Your task to perform on an android device: Open maps Image 0: 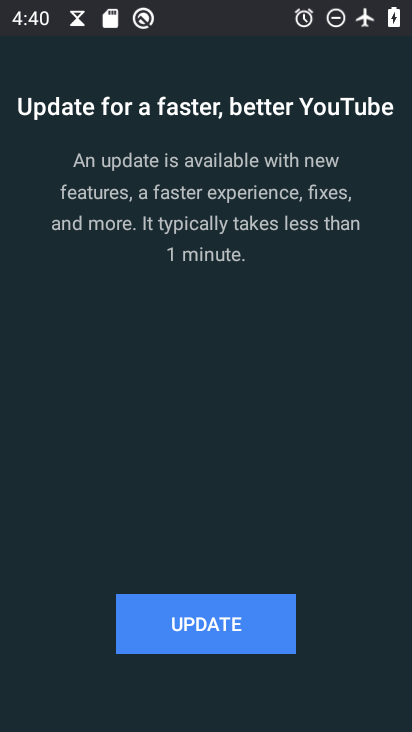
Step 0: press home button
Your task to perform on an android device: Open maps Image 1: 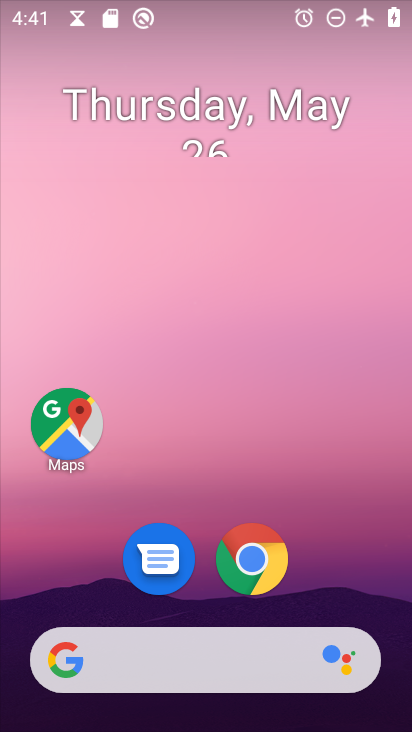
Step 1: click (46, 410)
Your task to perform on an android device: Open maps Image 2: 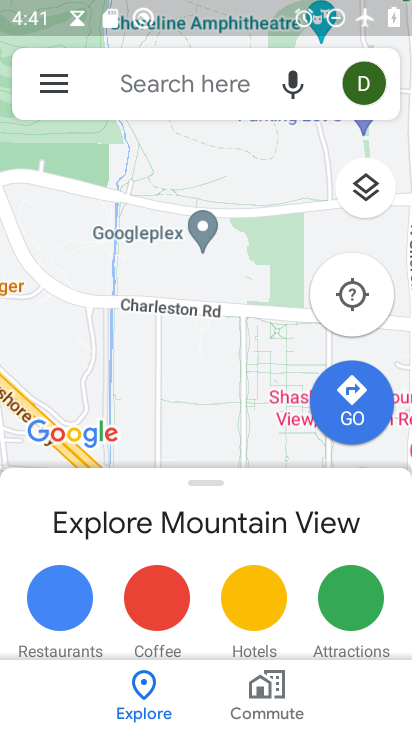
Step 2: task complete